Your task to perform on an android device: visit the assistant section in the google photos Image 0: 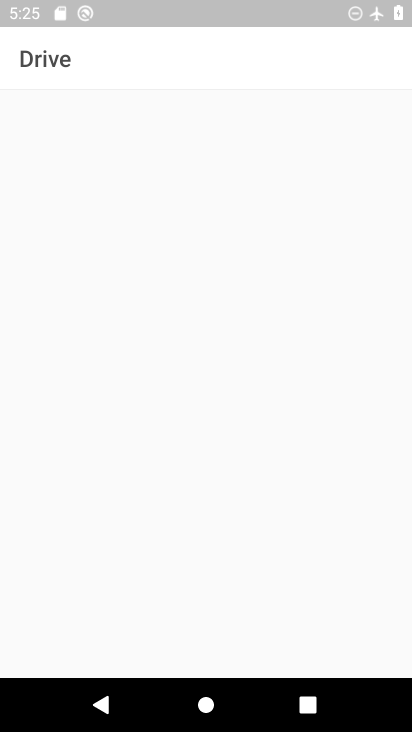
Step 0: press home button
Your task to perform on an android device: visit the assistant section in the google photos Image 1: 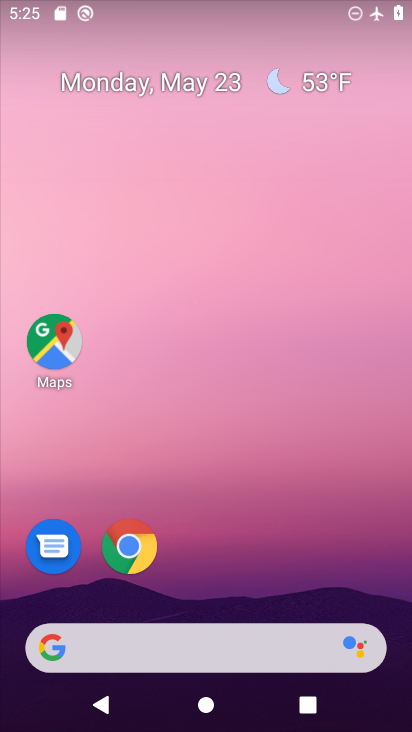
Step 1: drag from (247, 586) to (229, 275)
Your task to perform on an android device: visit the assistant section in the google photos Image 2: 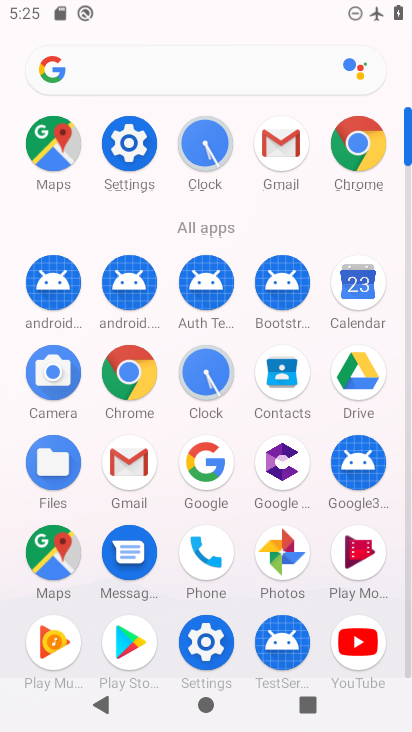
Step 2: click (279, 533)
Your task to perform on an android device: visit the assistant section in the google photos Image 3: 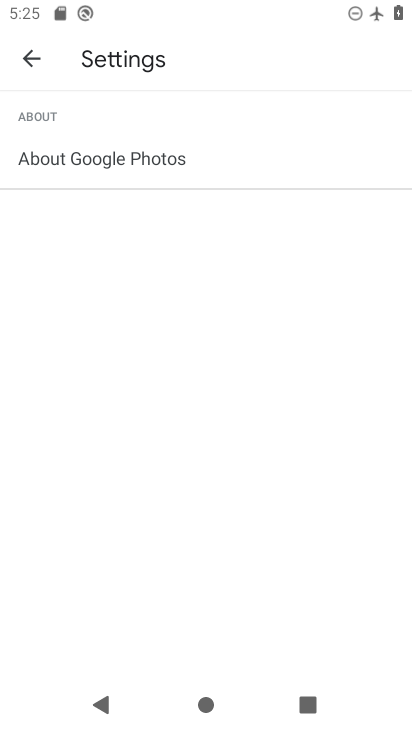
Step 3: click (19, 51)
Your task to perform on an android device: visit the assistant section in the google photos Image 4: 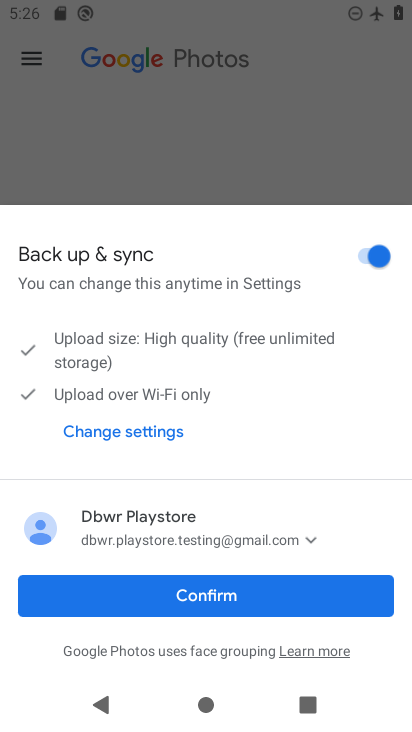
Step 4: click (223, 598)
Your task to perform on an android device: visit the assistant section in the google photos Image 5: 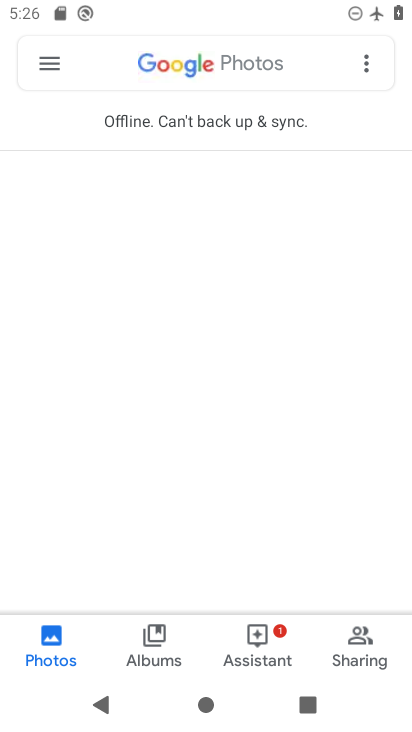
Step 5: click (259, 630)
Your task to perform on an android device: visit the assistant section in the google photos Image 6: 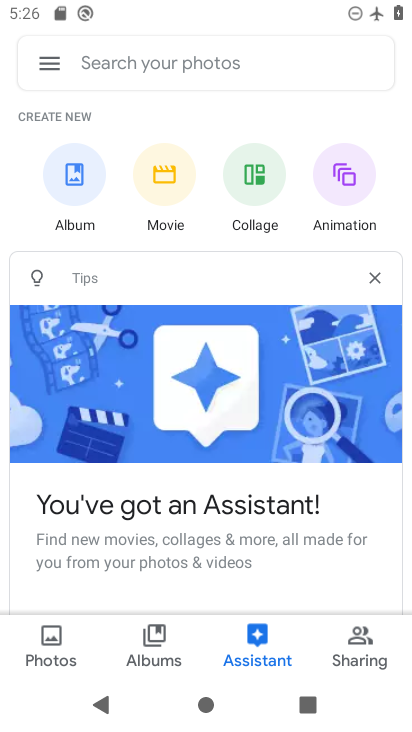
Step 6: task complete